Your task to perform on an android device: turn on priority inbox in the gmail app Image 0: 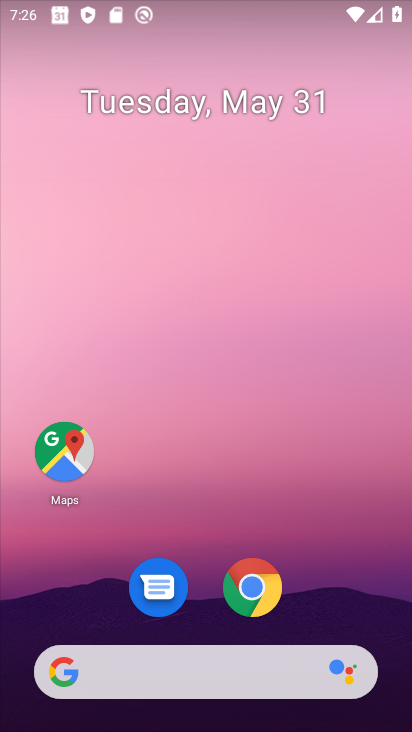
Step 0: drag from (204, 614) to (156, 15)
Your task to perform on an android device: turn on priority inbox in the gmail app Image 1: 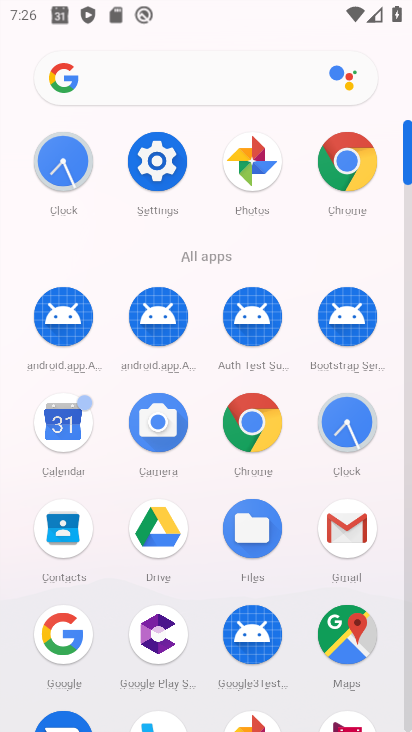
Step 1: click (340, 549)
Your task to perform on an android device: turn on priority inbox in the gmail app Image 2: 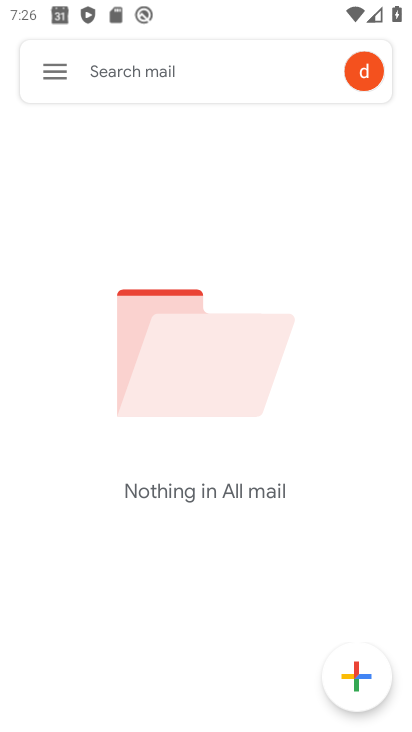
Step 2: press back button
Your task to perform on an android device: turn on priority inbox in the gmail app Image 3: 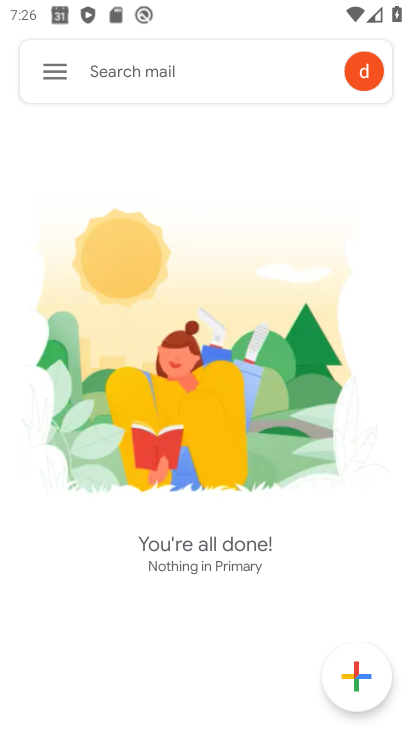
Step 3: click (57, 76)
Your task to perform on an android device: turn on priority inbox in the gmail app Image 4: 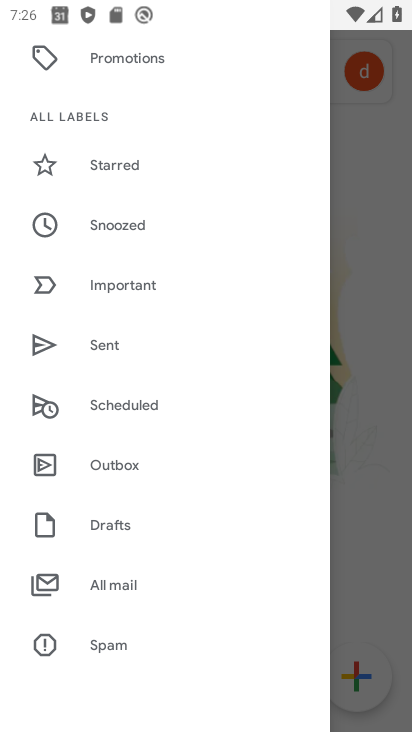
Step 4: drag from (115, 632) to (103, 333)
Your task to perform on an android device: turn on priority inbox in the gmail app Image 5: 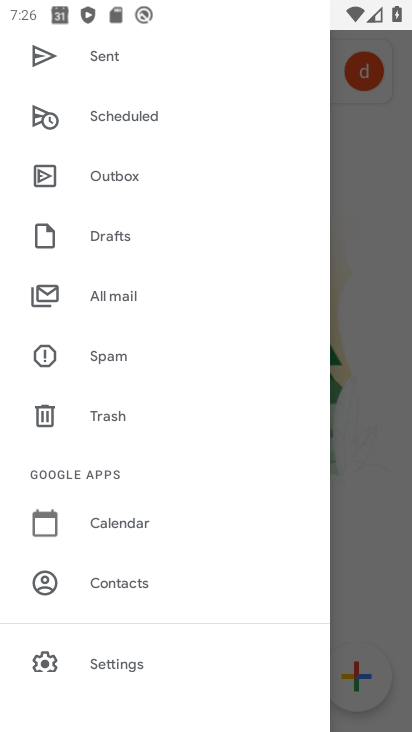
Step 5: drag from (127, 631) to (116, 428)
Your task to perform on an android device: turn on priority inbox in the gmail app Image 6: 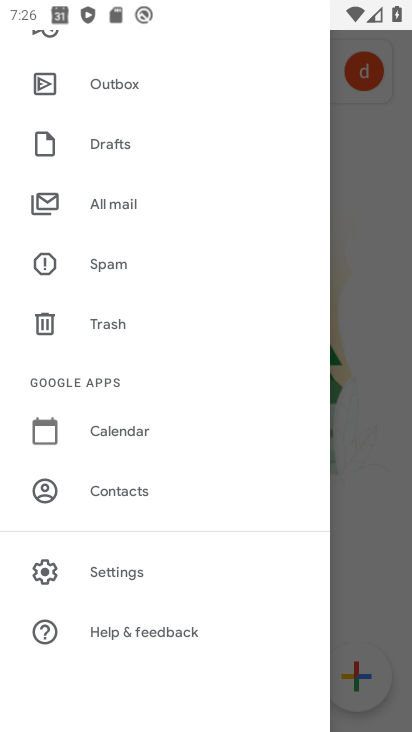
Step 6: click (116, 583)
Your task to perform on an android device: turn on priority inbox in the gmail app Image 7: 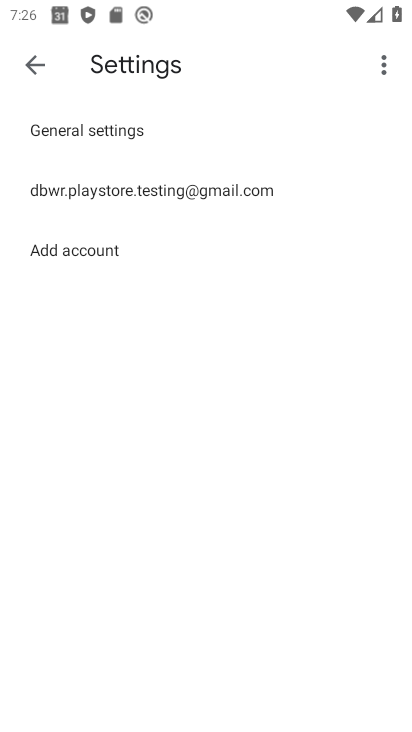
Step 7: click (67, 196)
Your task to perform on an android device: turn on priority inbox in the gmail app Image 8: 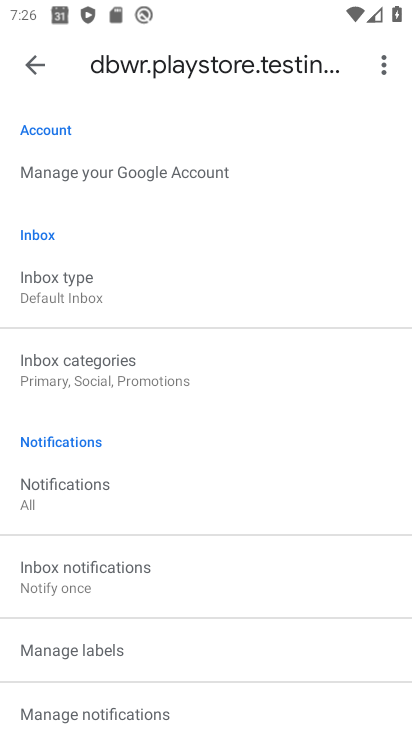
Step 8: click (75, 278)
Your task to perform on an android device: turn on priority inbox in the gmail app Image 9: 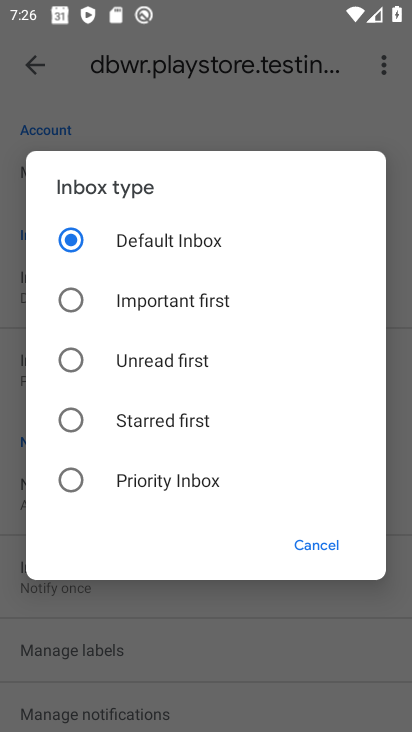
Step 9: click (81, 493)
Your task to perform on an android device: turn on priority inbox in the gmail app Image 10: 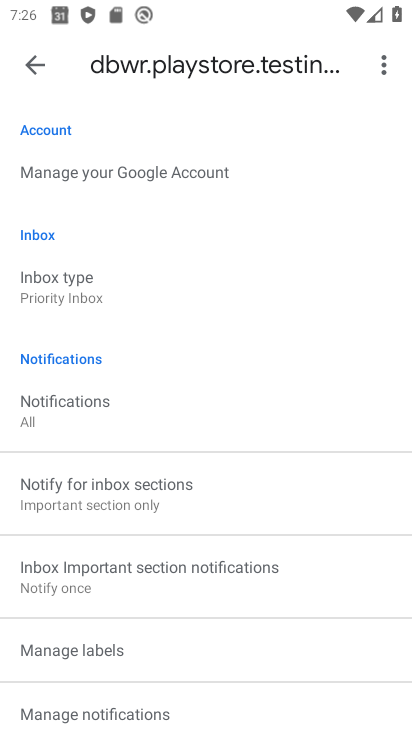
Step 10: task complete